Your task to perform on an android device: Open Google Chrome and open the bookmarks view Image 0: 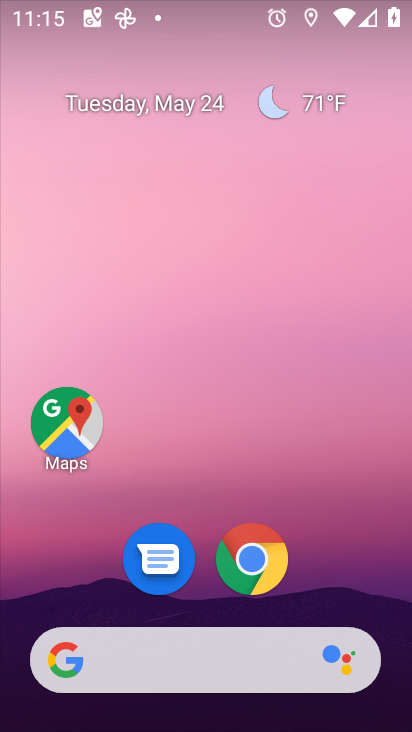
Step 0: drag from (396, 620) to (279, 152)
Your task to perform on an android device: Open Google Chrome and open the bookmarks view Image 1: 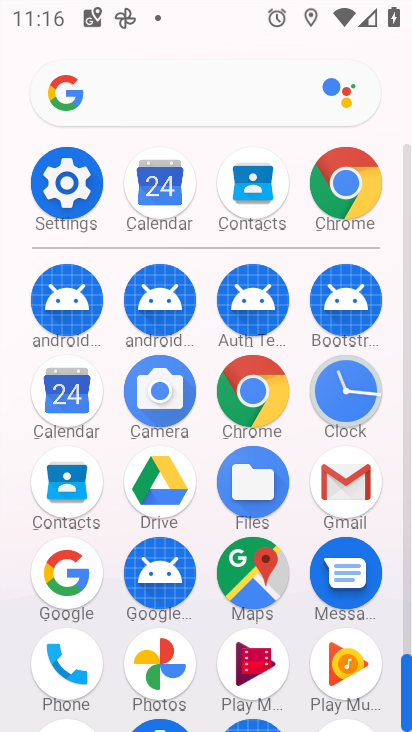
Step 1: click (250, 408)
Your task to perform on an android device: Open Google Chrome and open the bookmarks view Image 2: 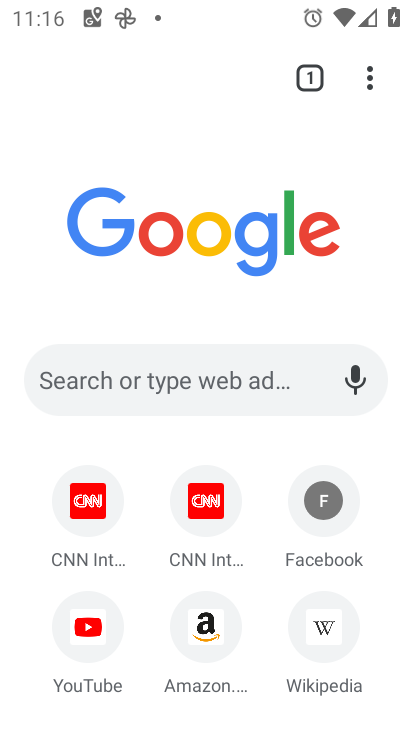
Step 2: click (367, 73)
Your task to perform on an android device: Open Google Chrome and open the bookmarks view Image 3: 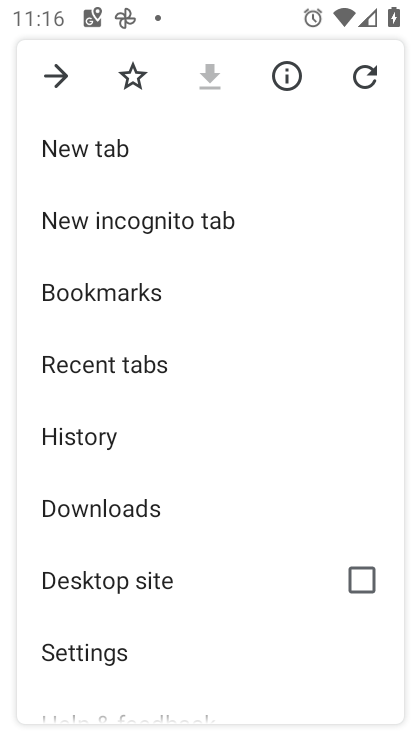
Step 3: click (169, 292)
Your task to perform on an android device: Open Google Chrome and open the bookmarks view Image 4: 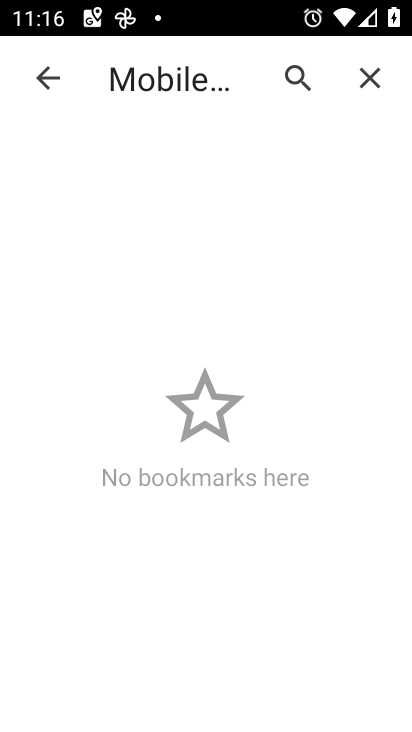
Step 4: task complete